Your task to perform on an android device: Open Reddit.com Image 0: 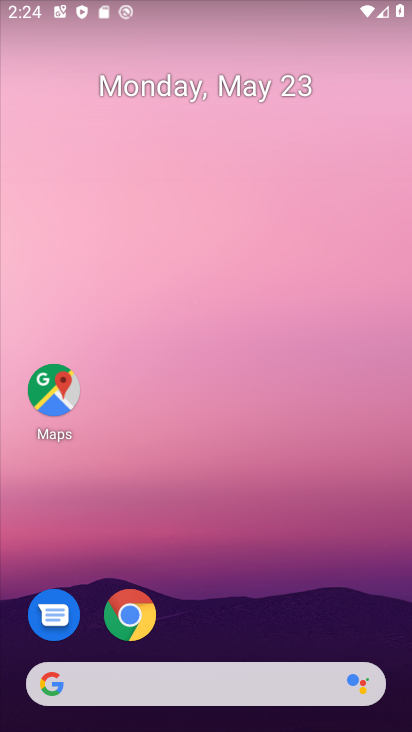
Step 0: drag from (358, 630) to (316, 137)
Your task to perform on an android device: Open Reddit.com Image 1: 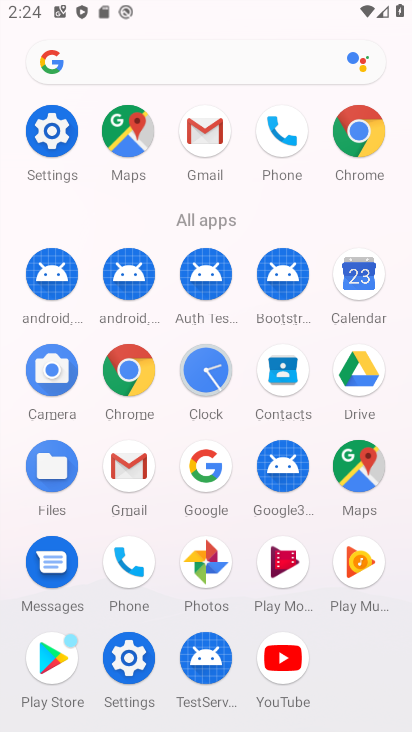
Step 1: click (120, 373)
Your task to perform on an android device: Open Reddit.com Image 2: 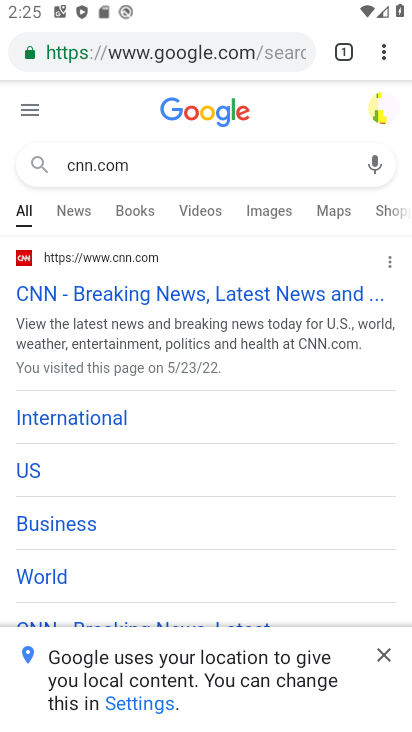
Step 2: click (210, 42)
Your task to perform on an android device: Open Reddit.com Image 3: 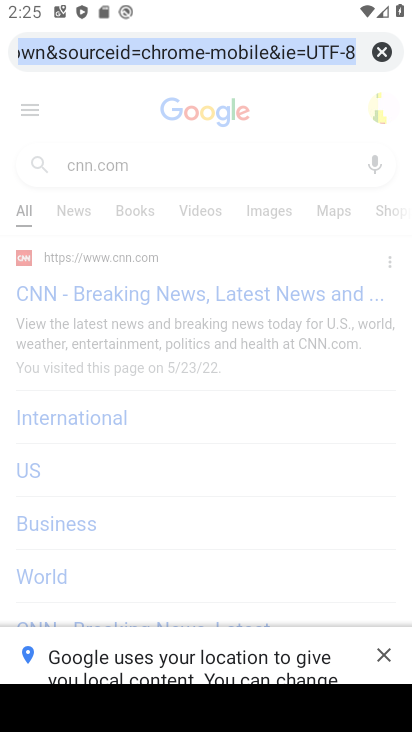
Step 3: click (371, 49)
Your task to perform on an android device: Open Reddit.com Image 4: 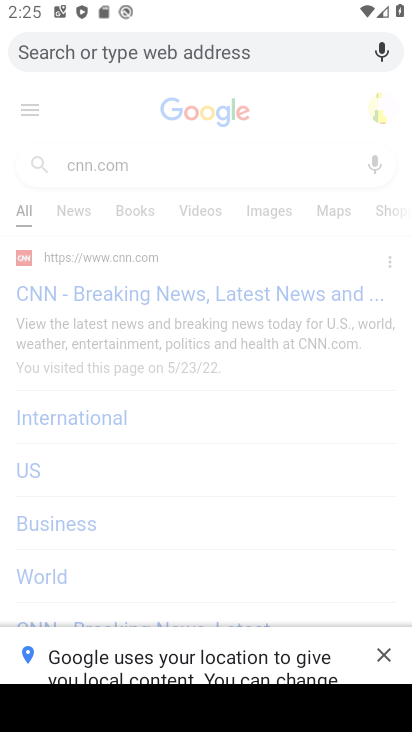
Step 4: type "reddit .com"
Your task to perform on an android device: Open Reddit.com Image 5: 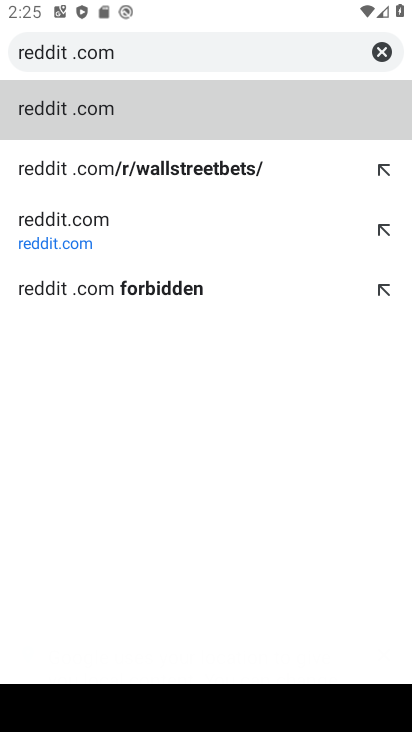
Step 5: click (73, 98)
Your task to perform on an android device: Open Reddit.com Image 6: 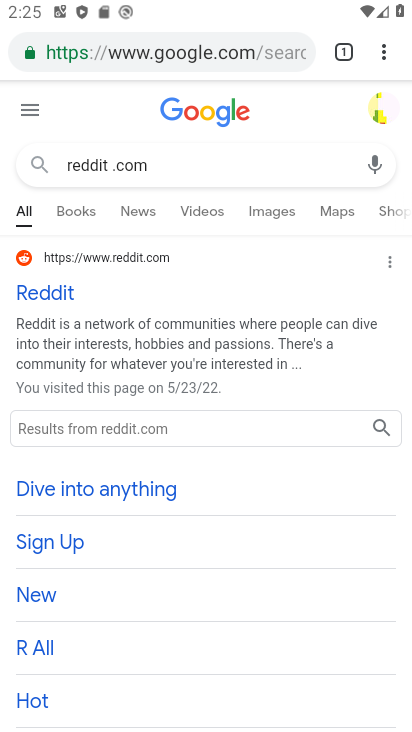
Step 6: task complete